Your task to perform on an android device: turn off sleep mode Image 0: 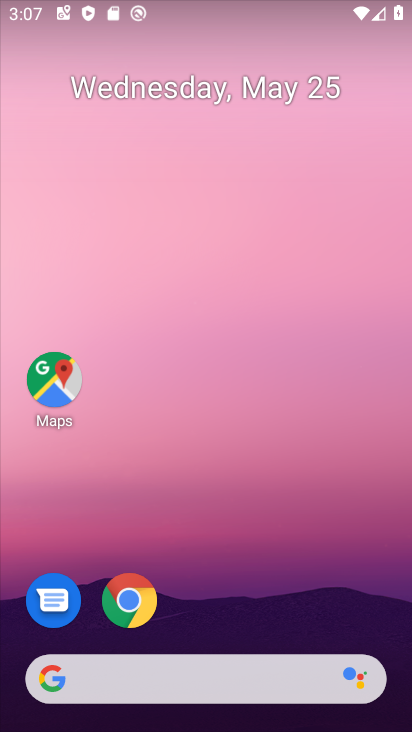
Step 0: press home button
Your task to perform on an android device: turn off sleep mode Image 1: 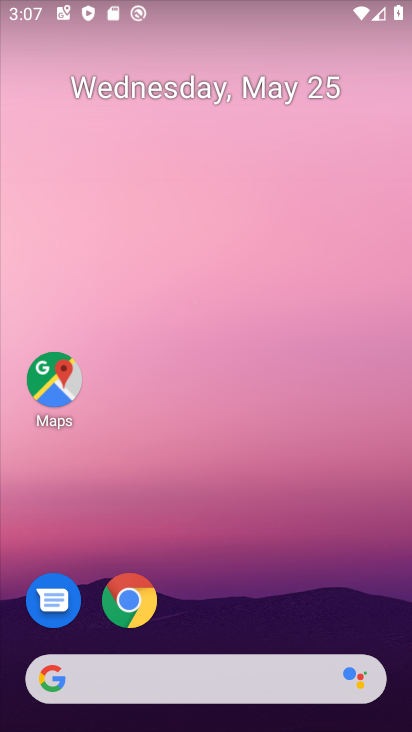
Step 1: drag from (18, 623) to (355, 124)
Your task to perform on an android device: turn off sleep mode Image 2: 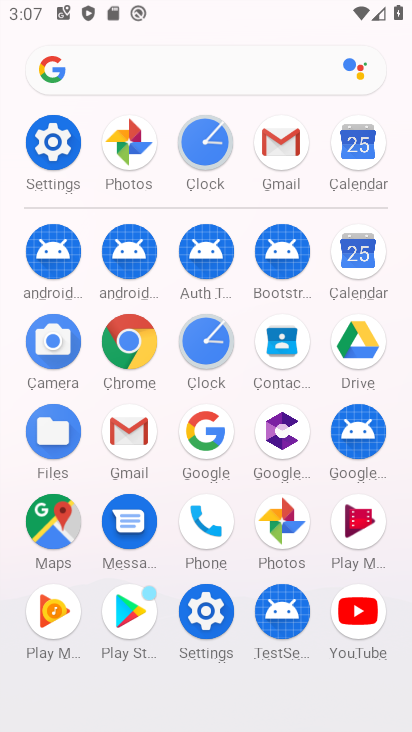
Step 2: click (46, 136)
Your task to perform on an android device: turn off sleep mode Image 3: 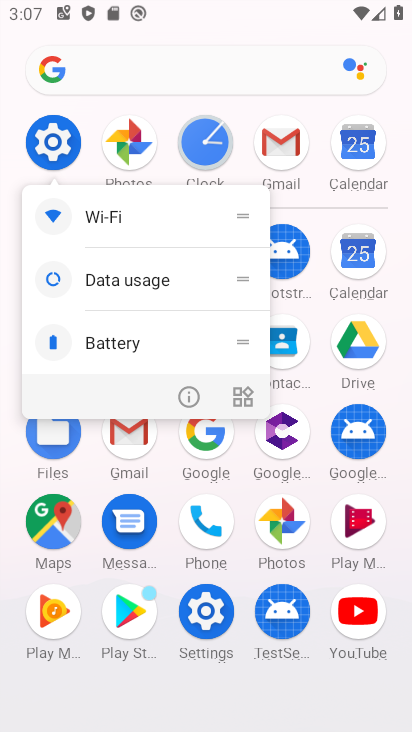
Step 3: click (69, 147)
Your task to perform on an android device: turn off sleep mode Image 4: 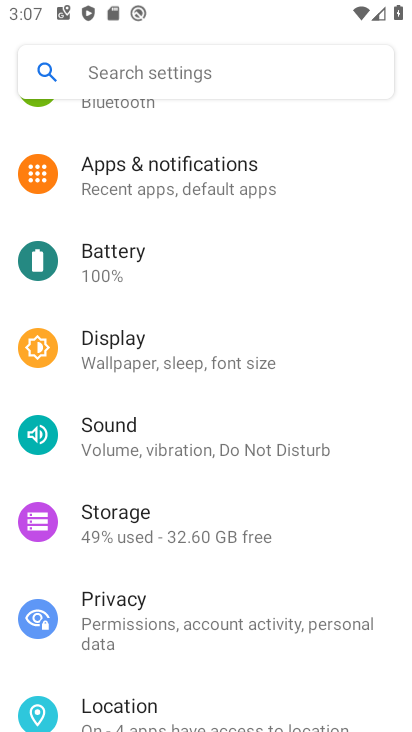
Step 4: click (213, 373)
Your task to perform on an android device: turn off sleep mode Image 5: 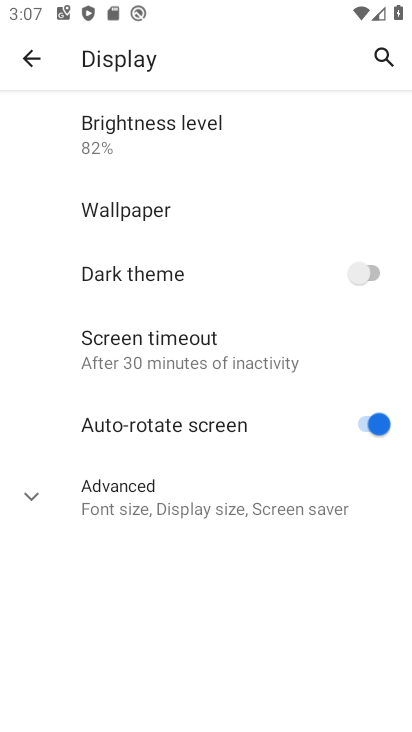
Step 5: task complete